Your task to perform on an android device: Open sound settings Image 0: 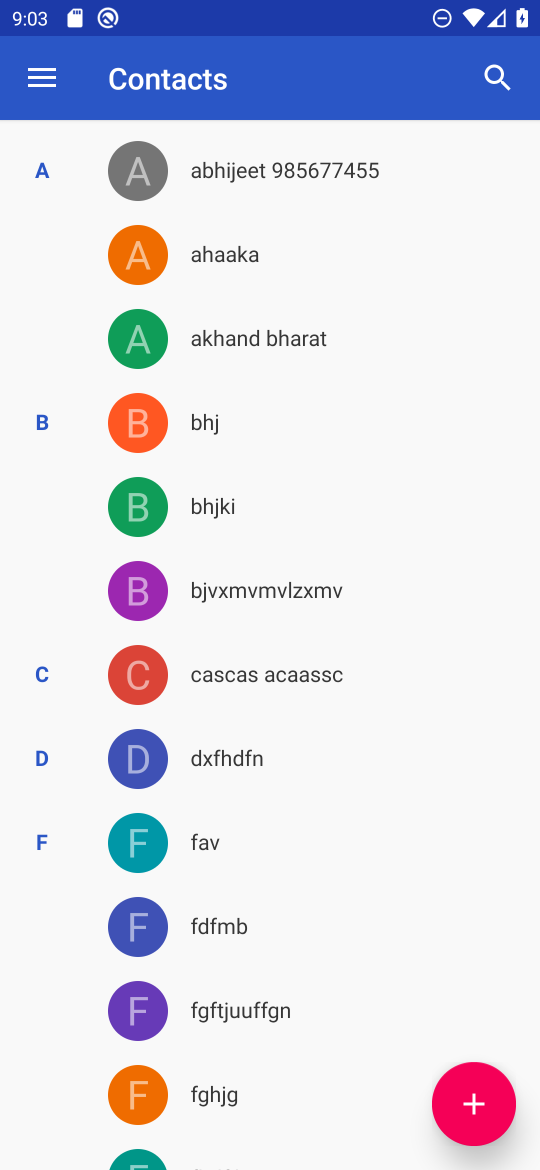
Step 0: press home button
Your task to perform on an android device: Open sound settings Image 1: 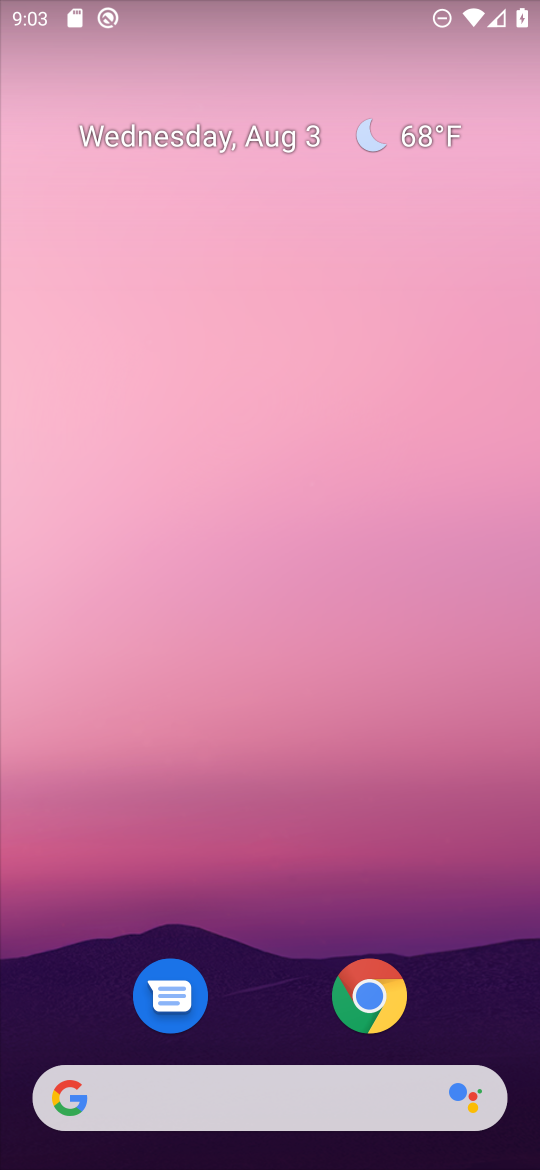
Step 1: drag from (288, 855) to (369, 3)
Your task to perform on an android device: Open sound settings Image 2: 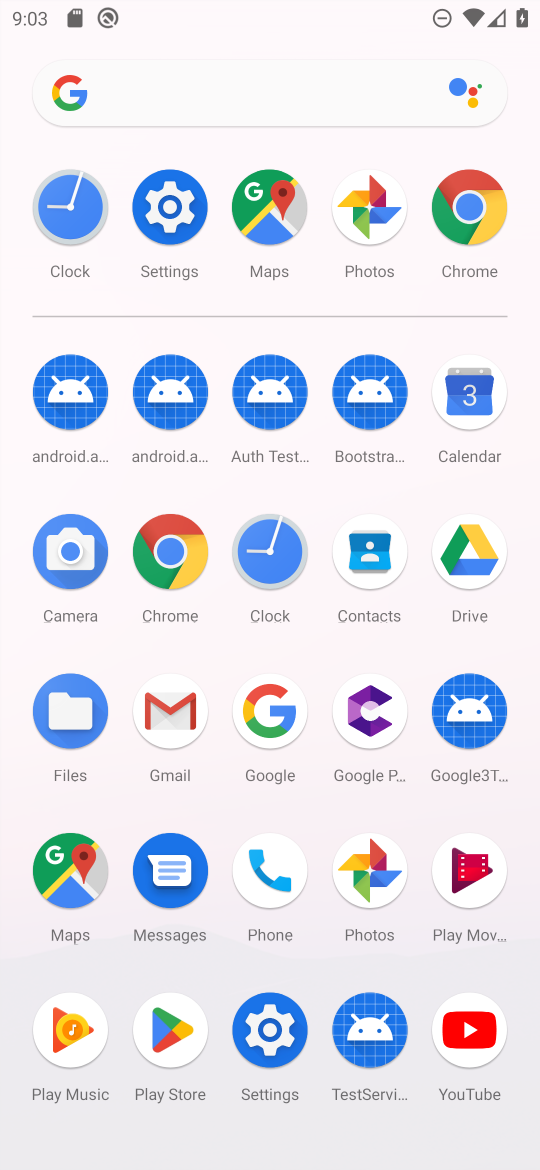
Step 2: click (173, 200)
Your task to perform on an android device: Open sound settings Image 3: 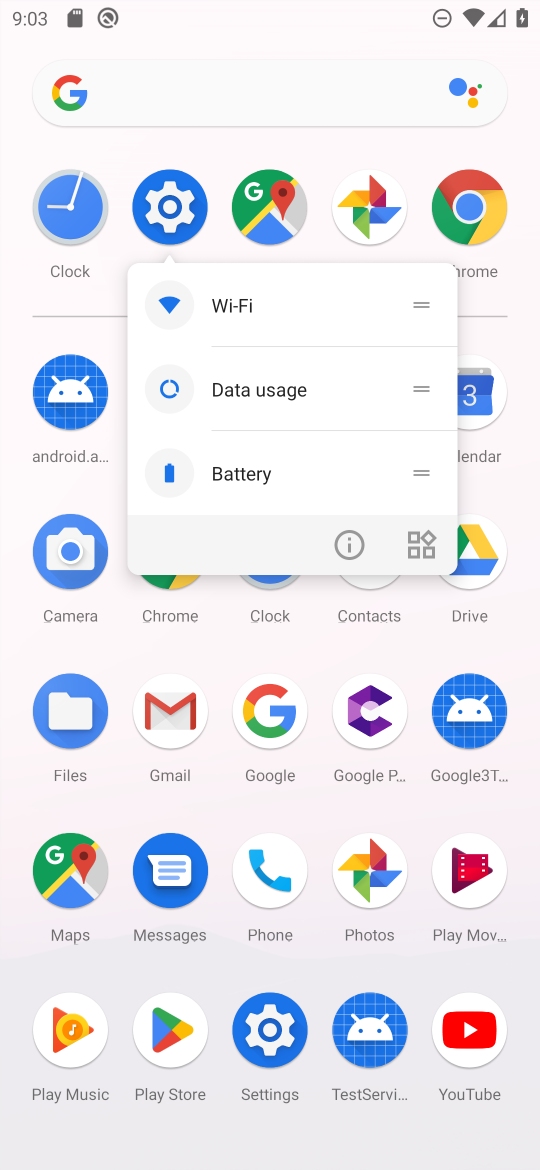
Step 3: click (173, 200)
Your task to perform on an android device: Open sound settings Image 4: 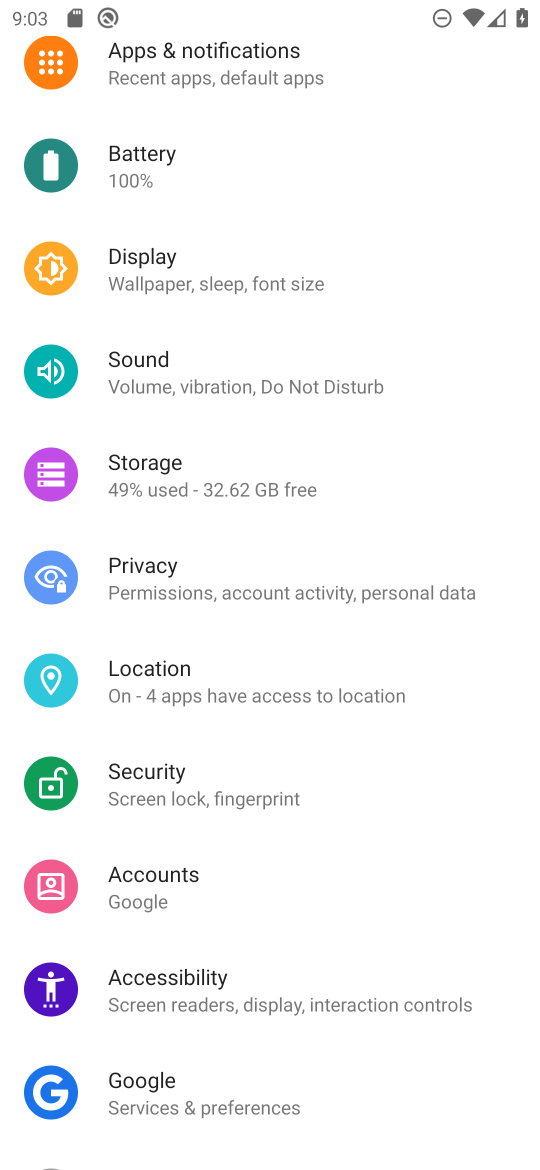
Step 4: click (248, 372)
Your task to perform on an android device: Open sound settings Image 5: 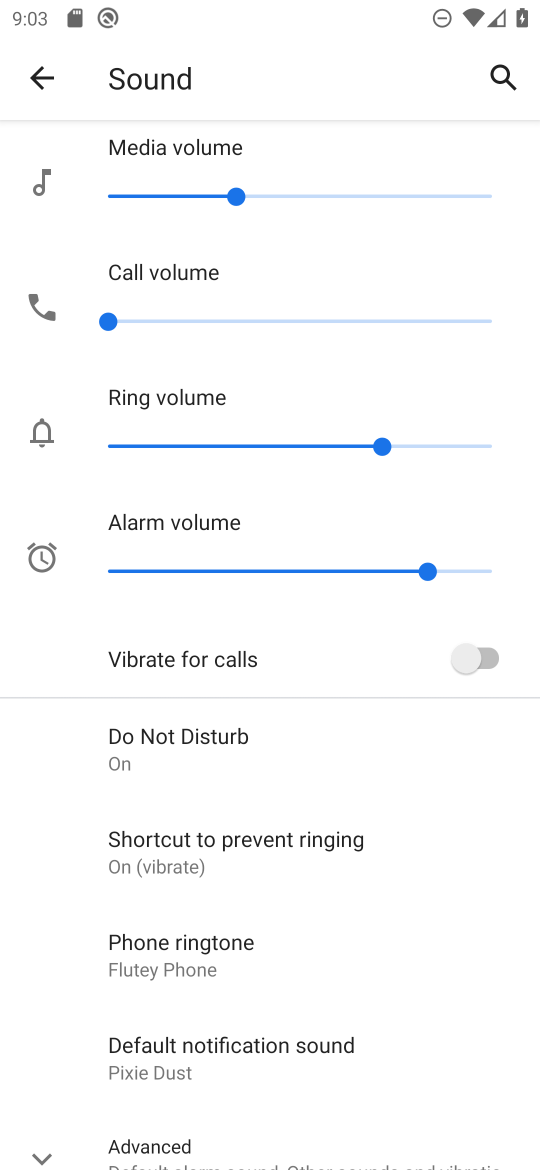
Step 5: task complete